Your task to perform on an android device: Is it going to rain tomorrow? Image 0: 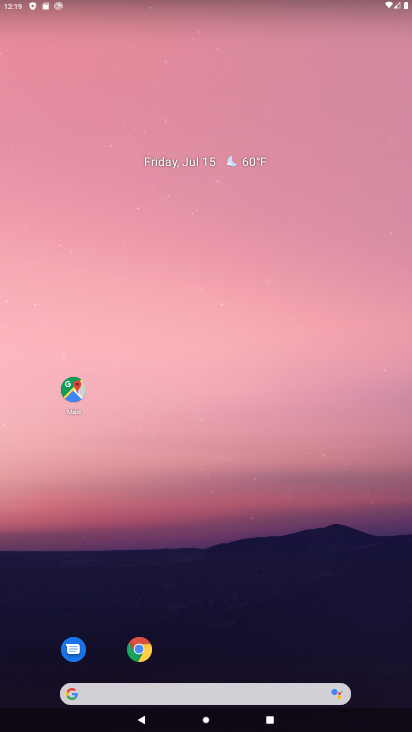
Step 0: drag from (263, 685) to (244, 297)
Your task to perform on an android device: Is it going to rain tomorrow? Image 1: 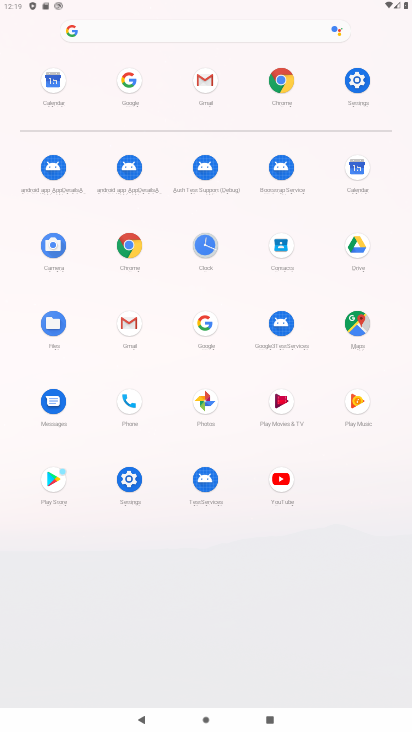
Step 1: click (287, 78)
Your task to perform on an android device: Is it going to rain tomorrow? Image 2: 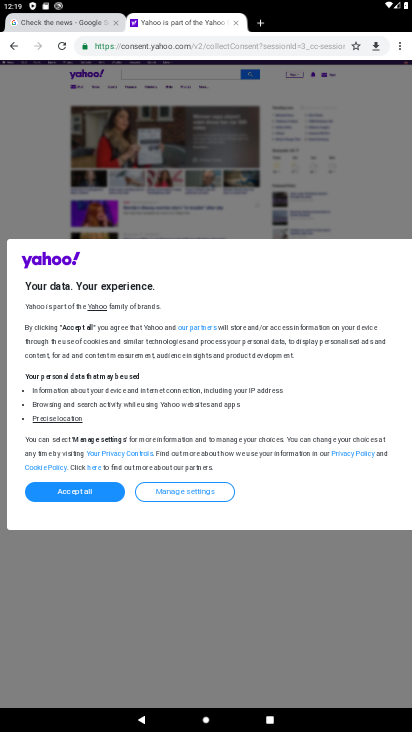
Step 2: click (260, 23)
Your task to perform on an android device: Is it going to rain tomorrow? Image 3: 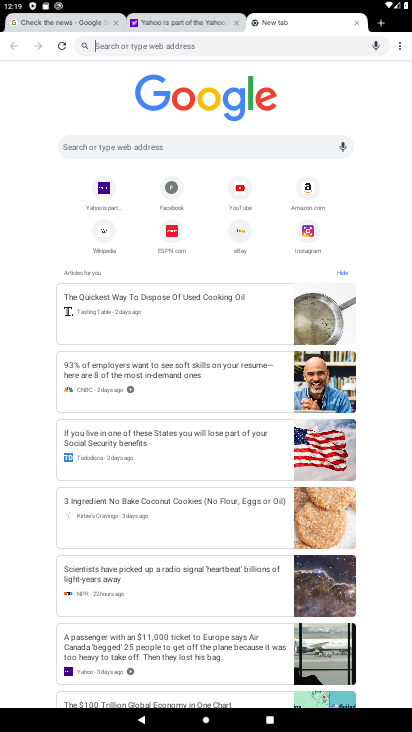
Step 3: click (135, 131)
Your task to perform on an android device: Is it going to rain tomorrow? Image 4: 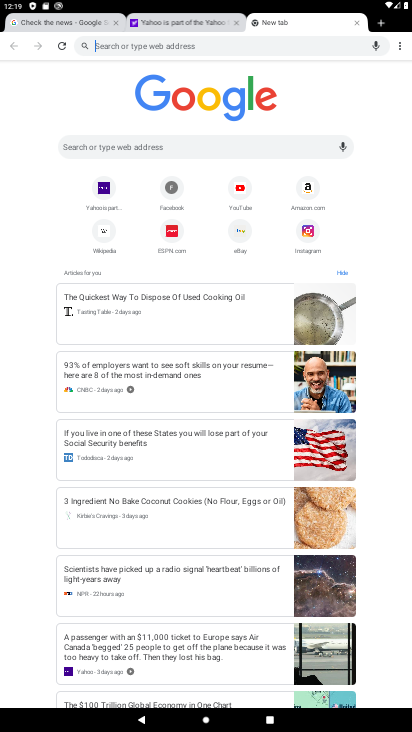
Step 4: click (135, 131)
Your task to perform on an android device: Is it going to rain tomorrow? Image 5: 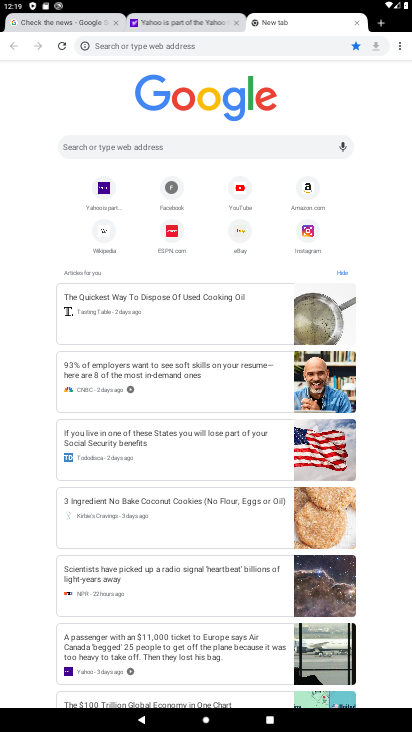
Step 5: click (160, 131)
Your task to perform on an android device: Is it going to rain tomorrow? Image 6: 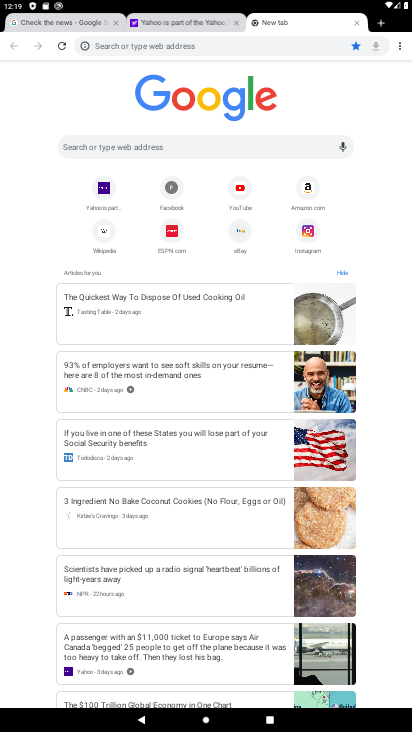
Step 6: click (160, 136)
Your task to perform on an android device: Is it going to rain tomorrow? Image 7: 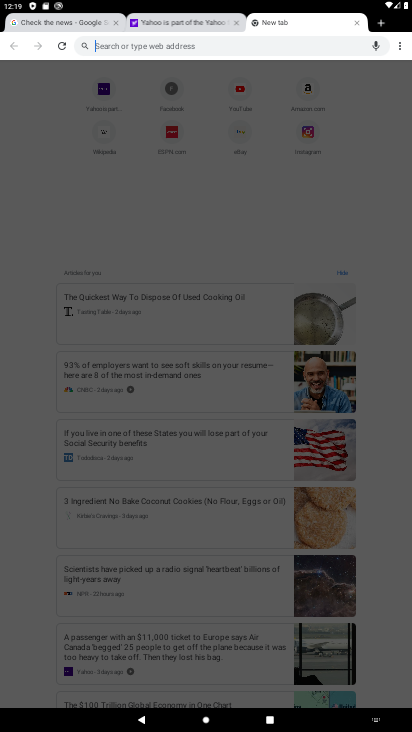
Step 7: type "Is it going to rain tomorrow "
Your task to perform on an android device: Is it going to rain tomorrow? Image 8: 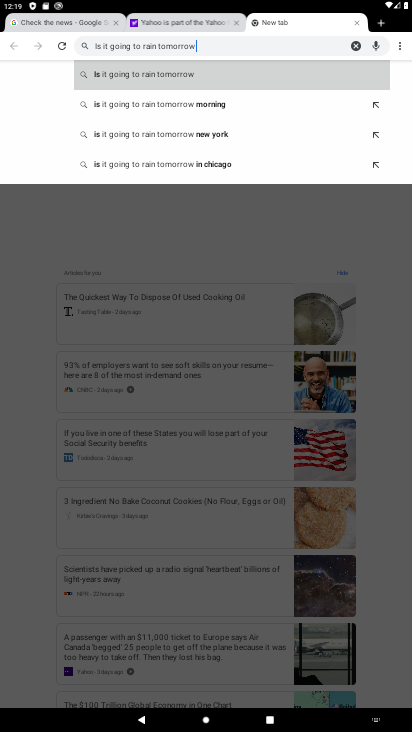
Step 8: click (147, 47)
Your task to perform on an android device: Is it going to rain tomorrow? Image 9: 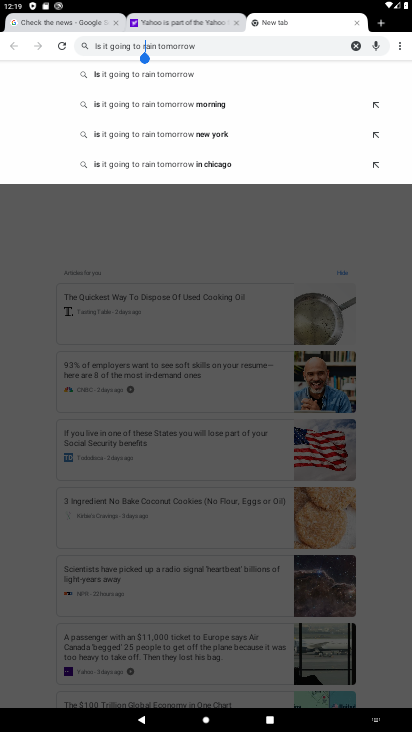
Step 9: click (147, 72)
Your task to perform on an android device: Is it going to rain tomorrow? Image 10: 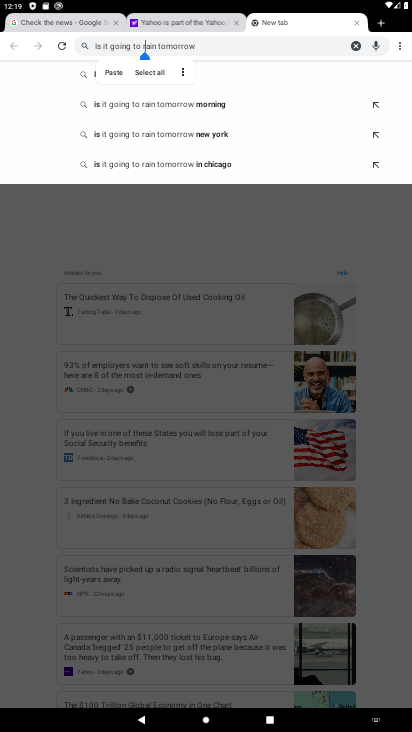
Step 10: click (165, 67)
Your task to perform on an android device: Is it going to rain tomorrow? Image 11: 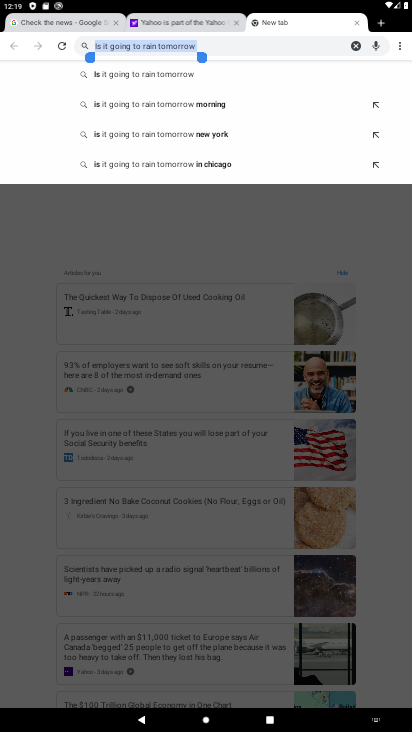
Step 11: click (253, 89)
Your task to perform on an android device: Is it going to rain tomorrow? Image 12: 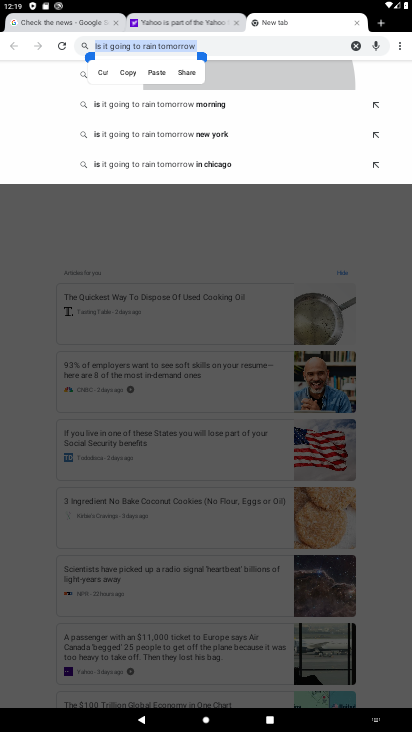
Step 12: click (219, 75)
Your task to perform on an android device: Is it going to rain tomorrow? Image 13: 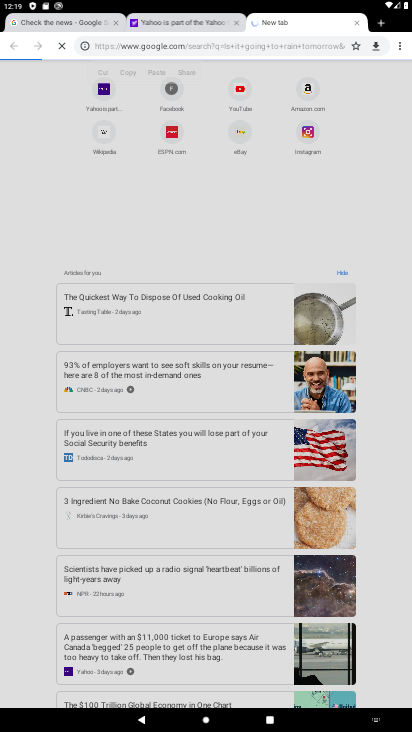
Step 13: click (219, 75)
Your task to perform on an android device: Is it going to rain tomorrow? Image 14: 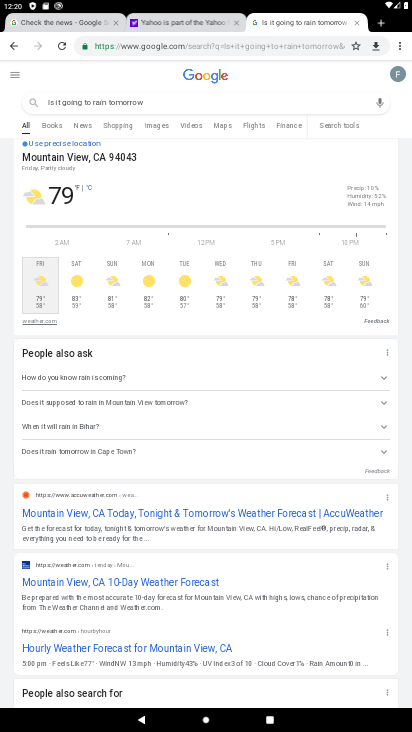
Step 14: task complete